Your task to perform on an android device: open chrome privacy settings Image 0: 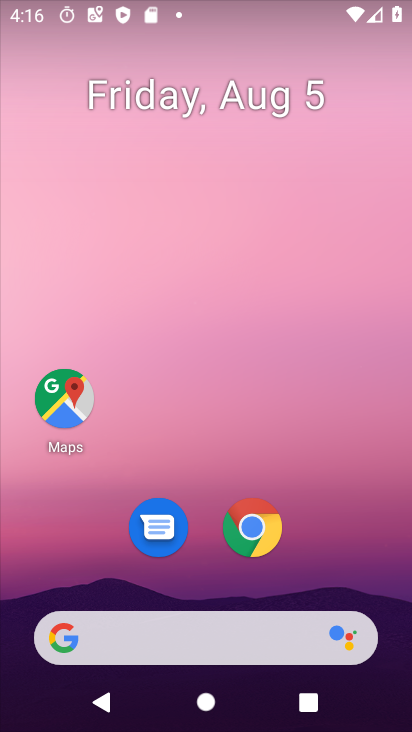
Step 0: click (250, 519)
Your task to perform on an android device: open chrome privacy settings Image 1: 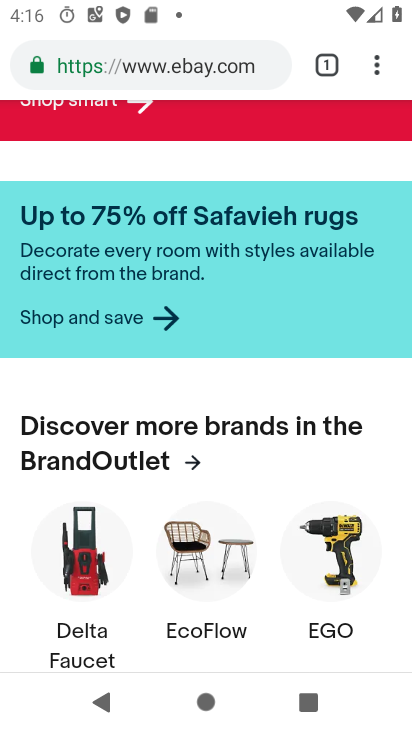
Step 1: click (374, 62)
Your task to perform on an android device: open chrome privacy settings Image 2: 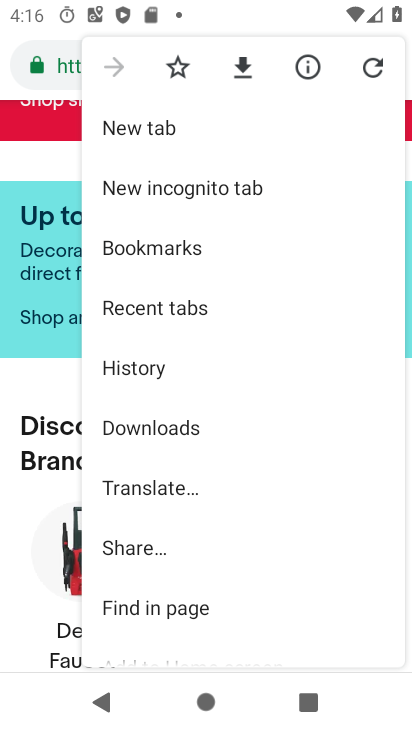
Step 2: drag from (241, 618) to (254, 172)
Your task to perform on an android device: open chrome privacy settings Image 3: 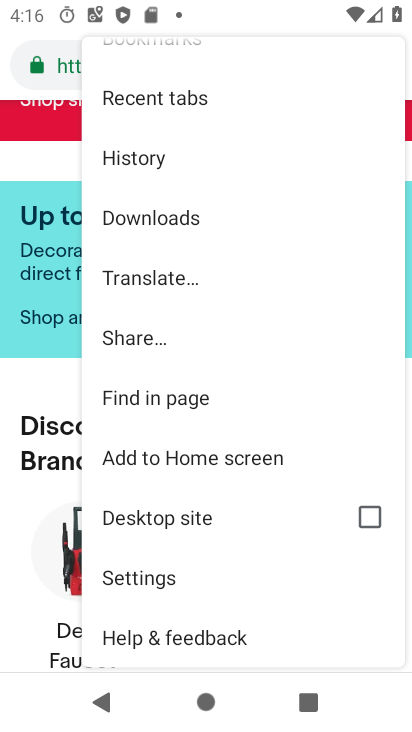
Step 3: click (190, 574)
Your task to perform on an android device: open chrome privacy settings Image 4: 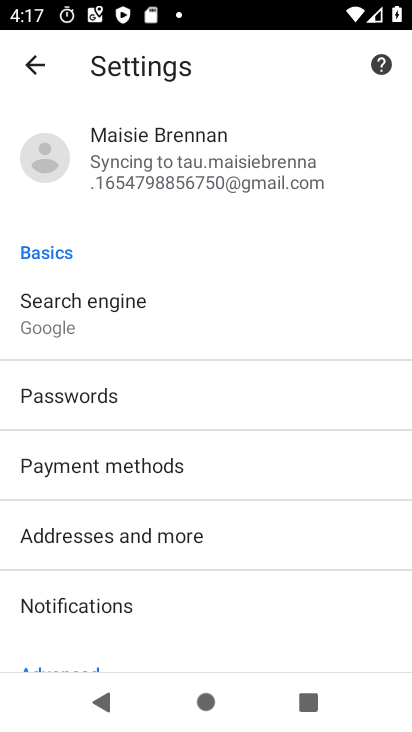
Step 4: drag from (169, 607) to (229, 224)
Your task to perform on an android device: open chrome privacy settings Image 5: 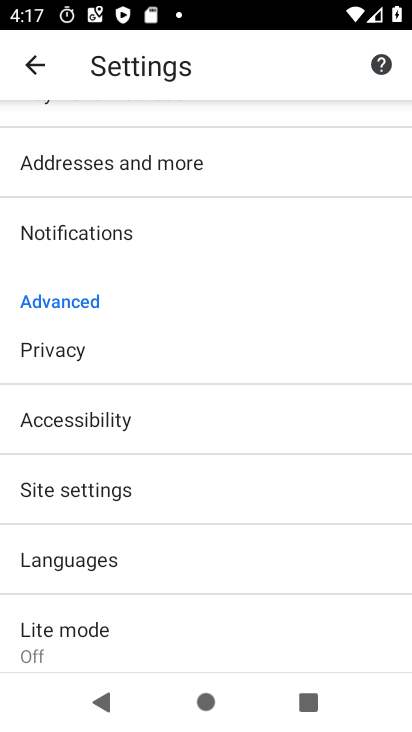
Step 5: click (104, 349)
Your task to perform on an android device: open chrome privacy settings Image 6: 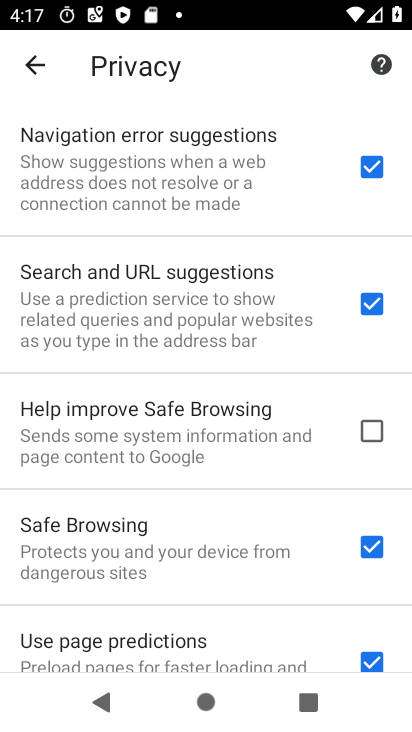
Step 6: task complete